Your task to perform on an android device: Open settings Image 0: 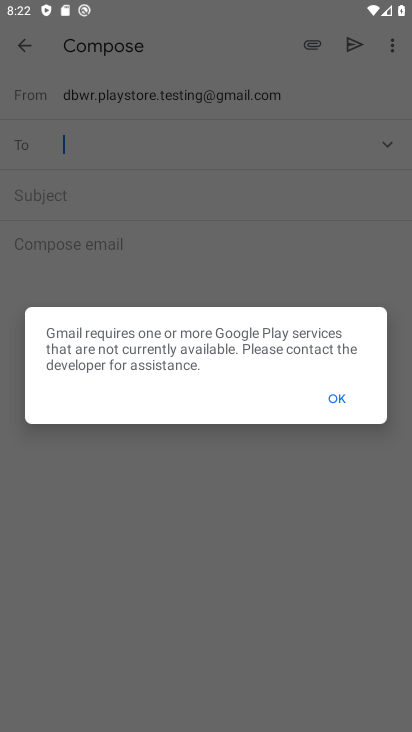
Step 0: press home button
Your task to perform on an android device: Open settings Image 1: 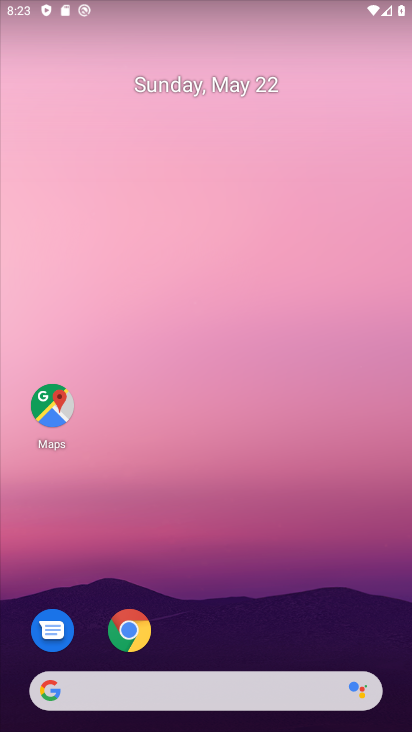
Step 1: drag from (247, 626) to (244, 184)
Your task to perform on an android device: Open settings Image 2: 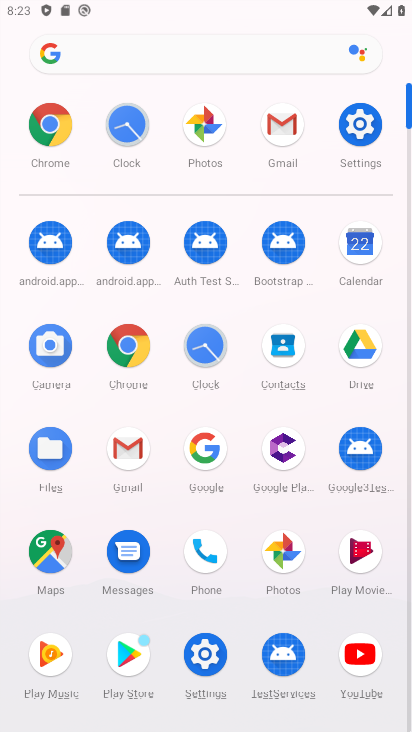
Step 2: click (363, 155)
Your task to perform on an android device: Open settings Image 3: 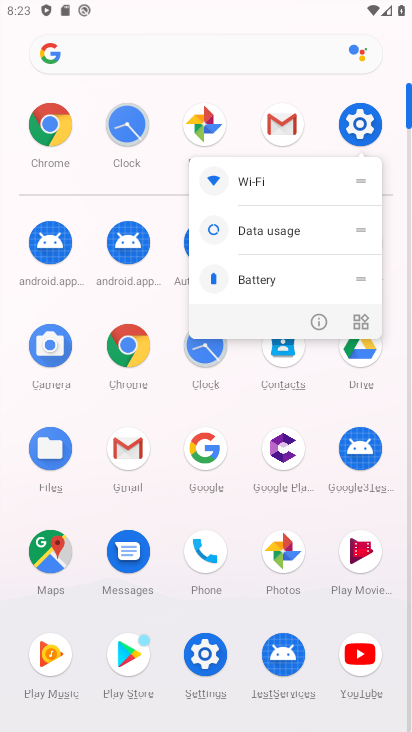
Step 3: click (362, 133)
Your task to perform on an android device: Open settings Image 4: 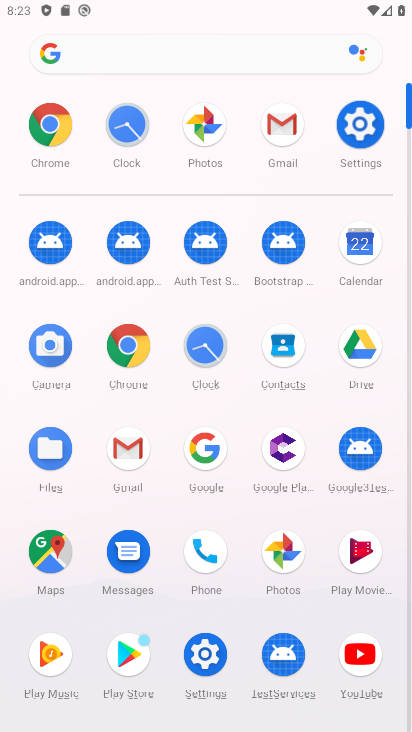
Step 4: click (362, 133)
Your task to perform on an android device: Open settings Image 5: 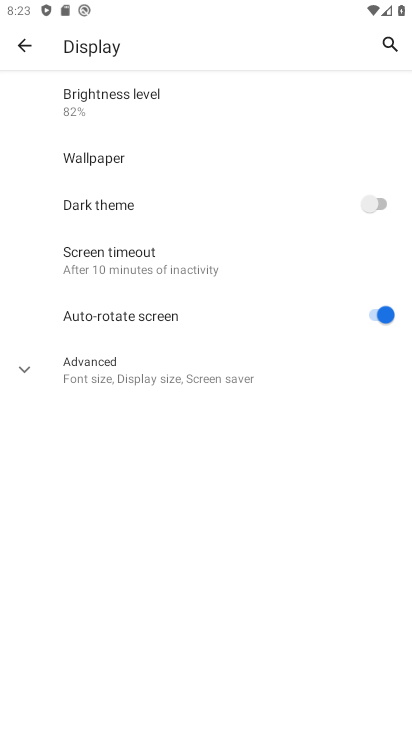
Step 5: click (40, 47)
Your task to perform on an android device: Open settings Image 6: 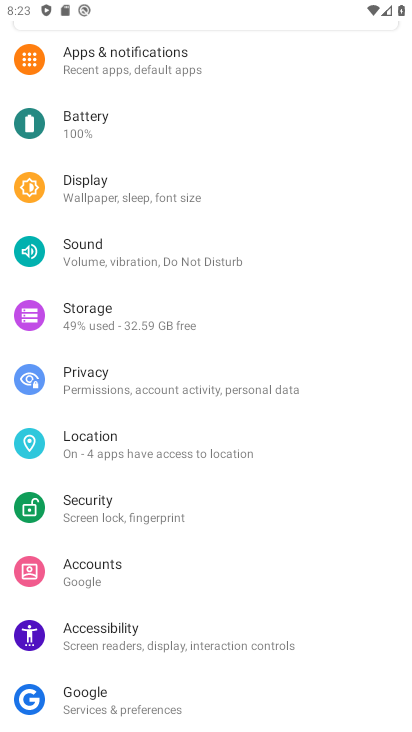
Step 6: task complete